Your task to perform on an android device: Go to ESPN.com Image 0: 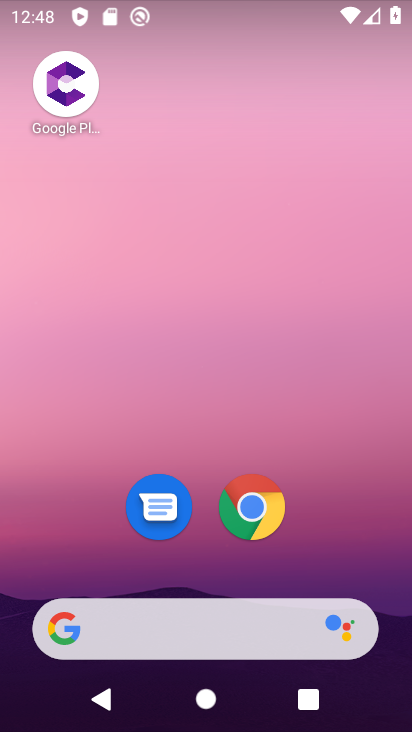
Step 0: click (215, 566)
Your task to perform on an android device: Go to ESPN.com Image 1: 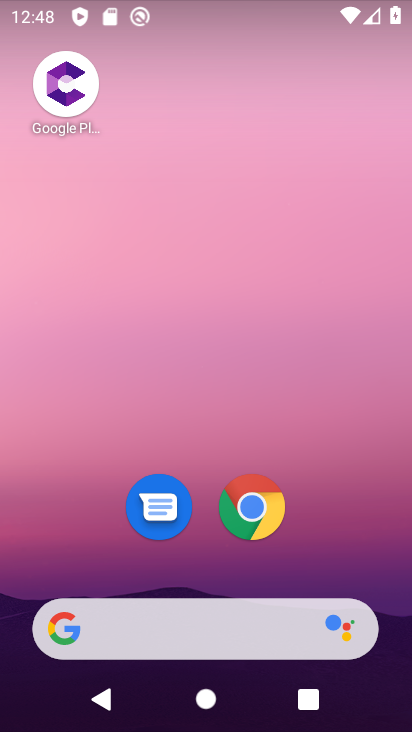
Step 1: click (226, 525)
Your task to perform on an android device: Go to ESPN.com Image 2: 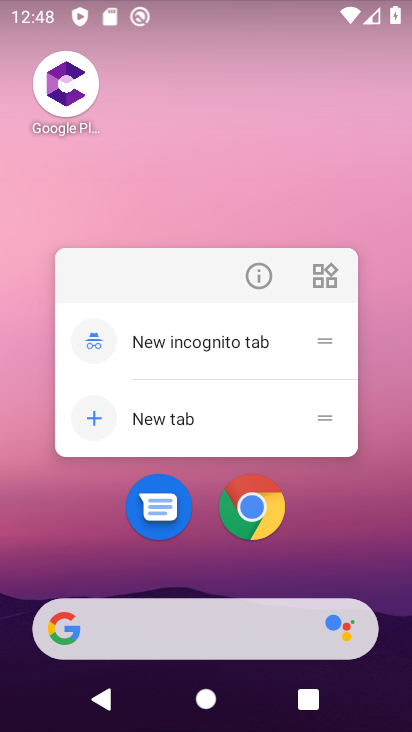
Step 2: click (249, 516)
Your task to perform on an android device: Go to ESPN.com Image 3: 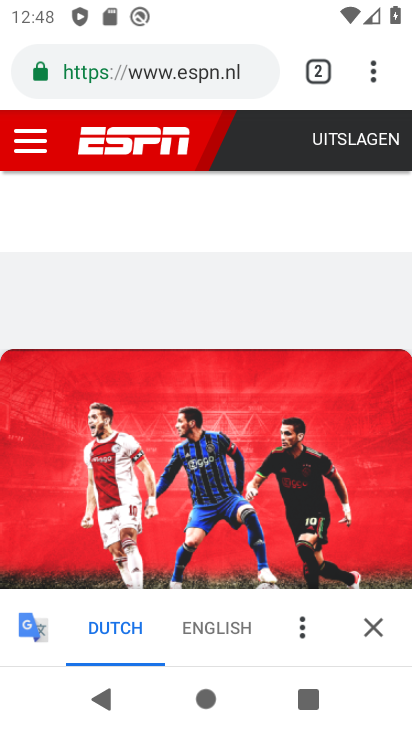
Step 3: click (336, 66)
Your task to perform on an android device: Go to ESPN.com Image 4: 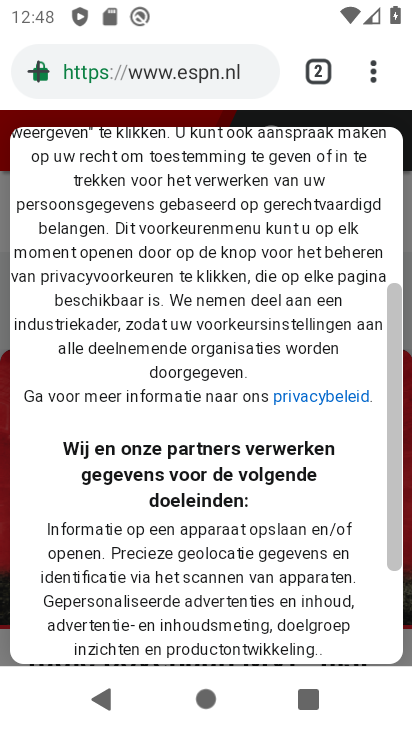
Step 4: click (316, 70)
Your task to perform on an android device: Go to ESPN.com Image 5: 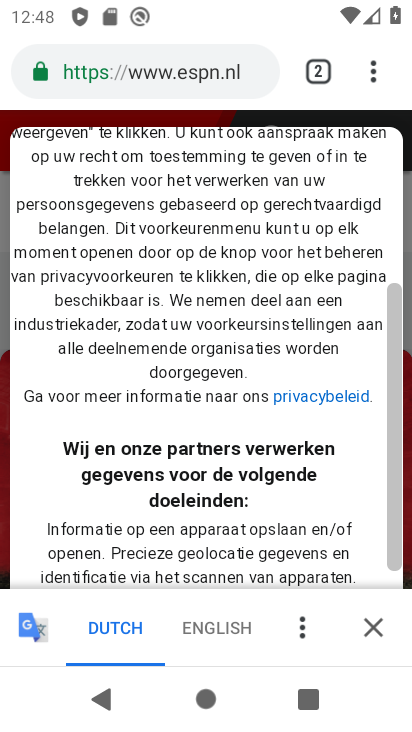
Step 5: click (311, 73)
Your task to perform on an android device: Go to ESPN.com Image 6: 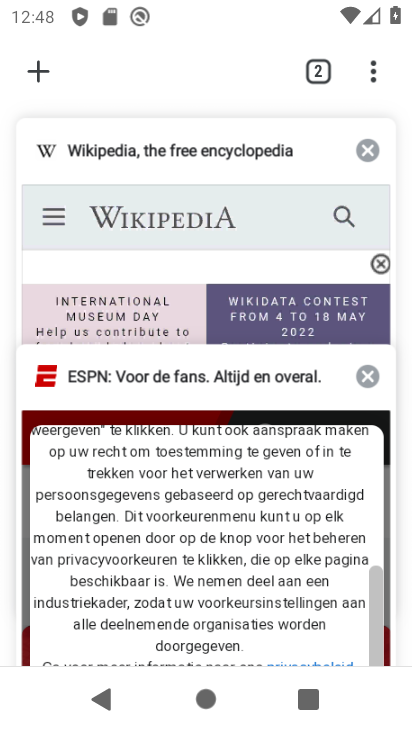
Step 6: click (165, 355)
Your task to perform on an android device: Go to ESPN.com Image 7: 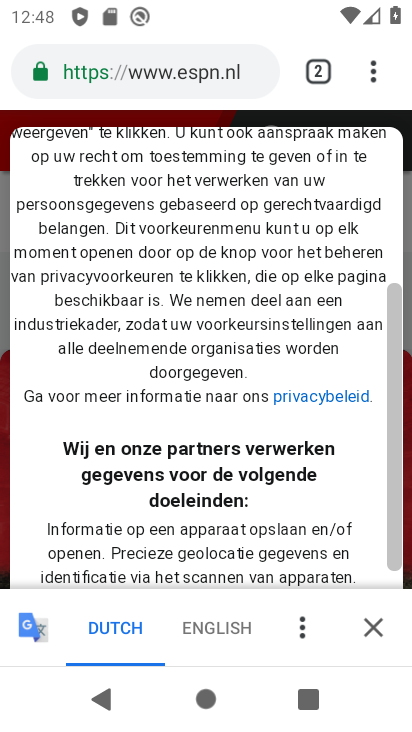
Step 7: task complete